Your task to perform on an android device: Go to display settings Image 0: 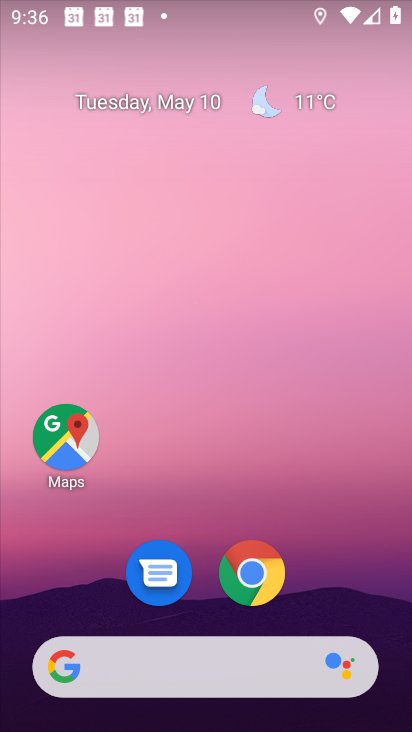
Step 0: drag from (221, 424) to (237, 60)
Your task to perform on an android device: Go to display settings Image 1: 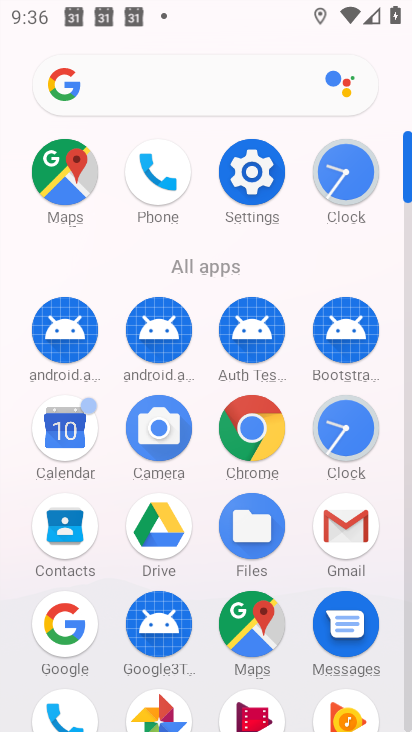
Step 1: click (262, 178)
Your task to perform on an android device: Go to display settings Image 2: 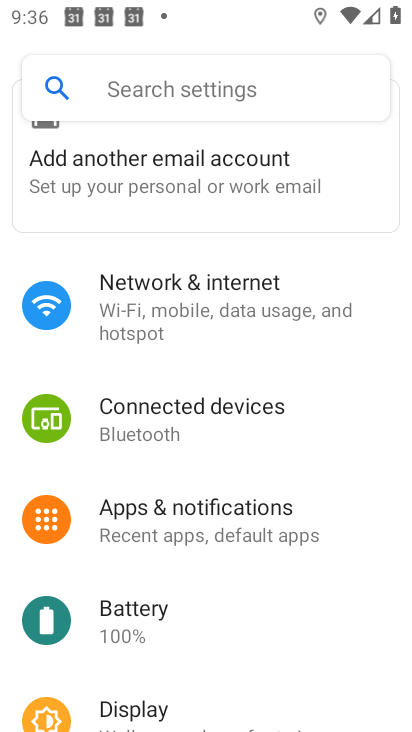
Step 2: drag from (177, 624) to (228, 334)
Your task to perform on an android device: Go to display settings Image 3: 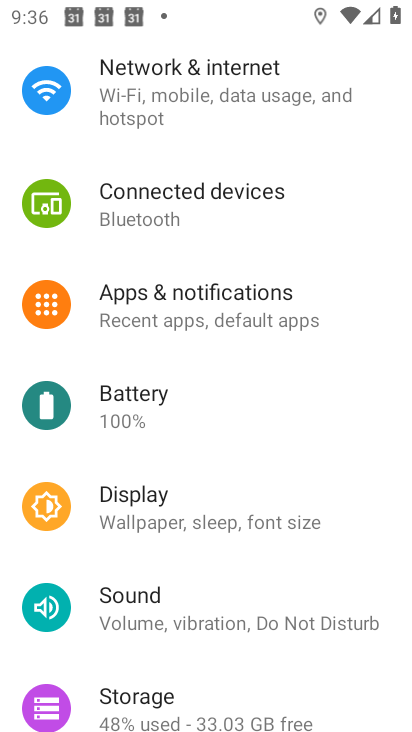
Step 3: click (203, 499)
Your task to perform on an android device: Go to display settings Image 4: 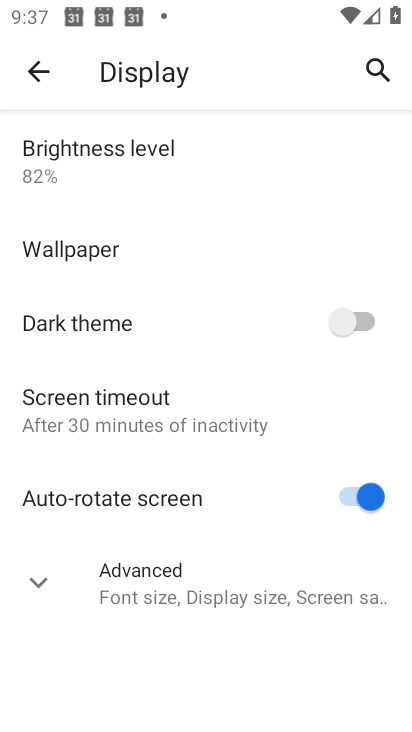
Step 4: task complete